Your task to perform on an android device: toggle javascript in the chrome app Image 0: 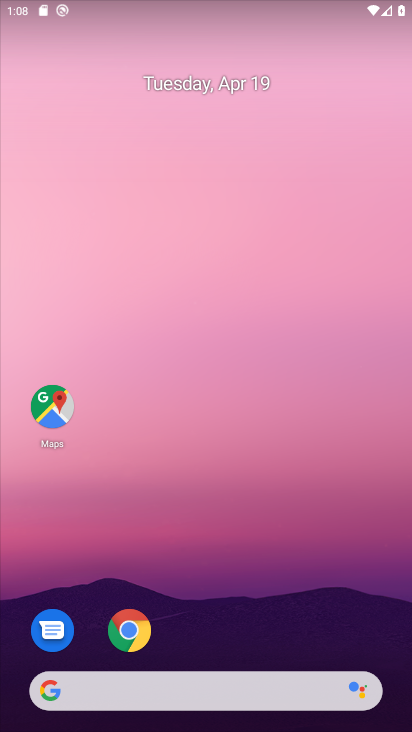
Step 0: click (120, 624)
Your task to perform on an android device: toggle javascript in the chrome app Image 1: 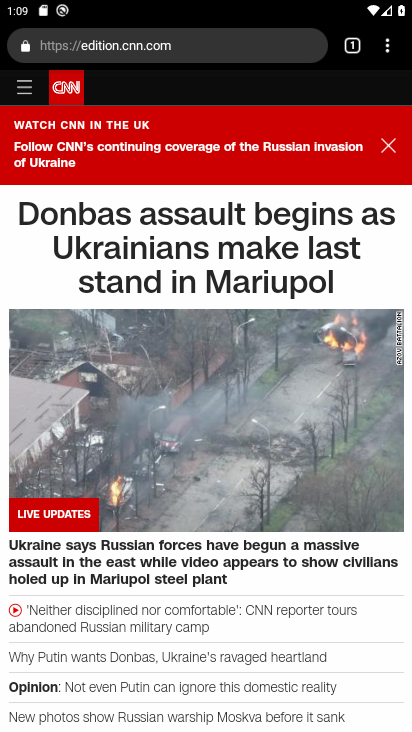
Step 1: click (383, 47)
Your task to perform on an android device: toggle javascript in the chrome app Image 2: 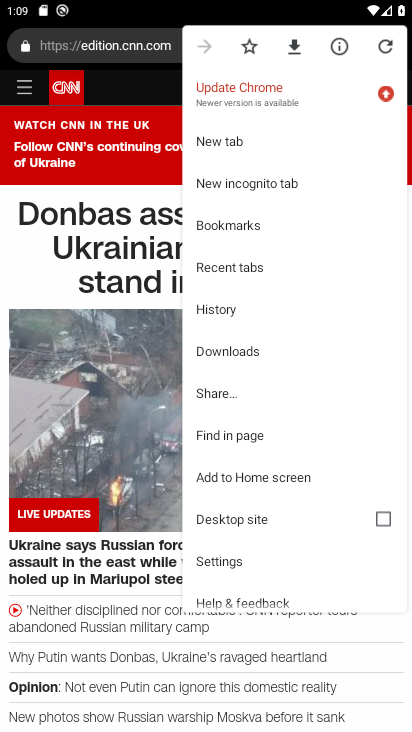
Step 2: click (198, 566)
Your task to perform on an android device: toggle javascript in the chrome app Image 3: 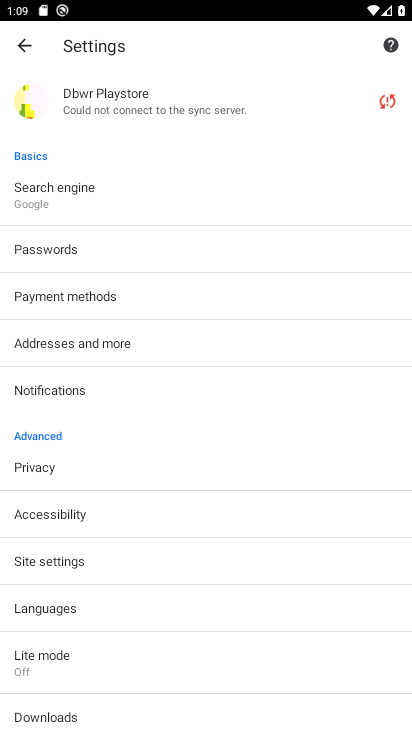
Step 3: click (118, 563)
Your task to perform on an android device: toggle javascript in the chrome app Image 4: 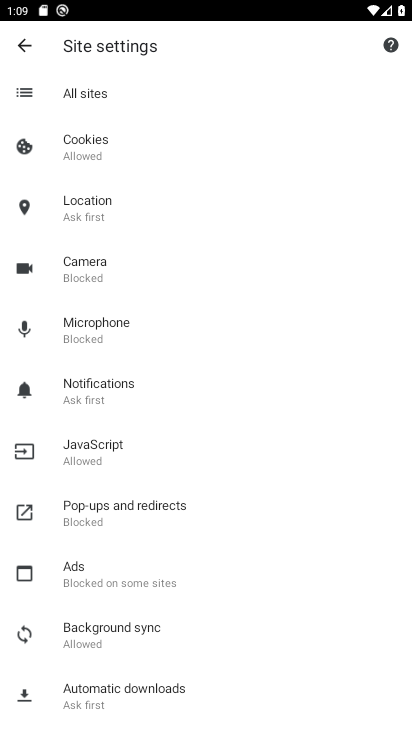
Step 4: click (148, 466)
Your task to perform on an android device: toggle javascript in the chrome app Image 5: 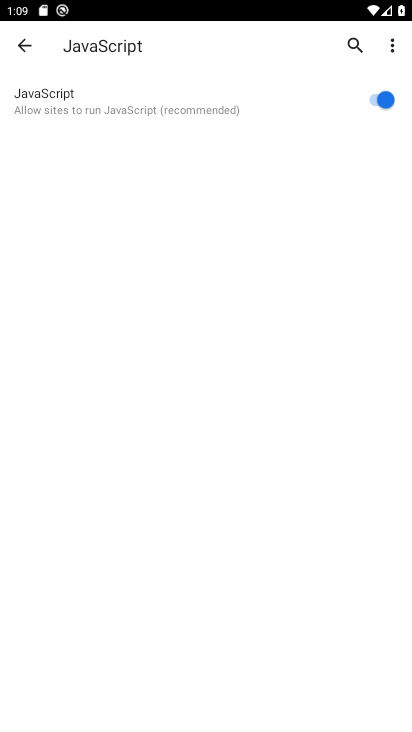
Step 5: click (377, 100)
Your task to perform on an android device: toggle javascript in the chrome app Image 6: 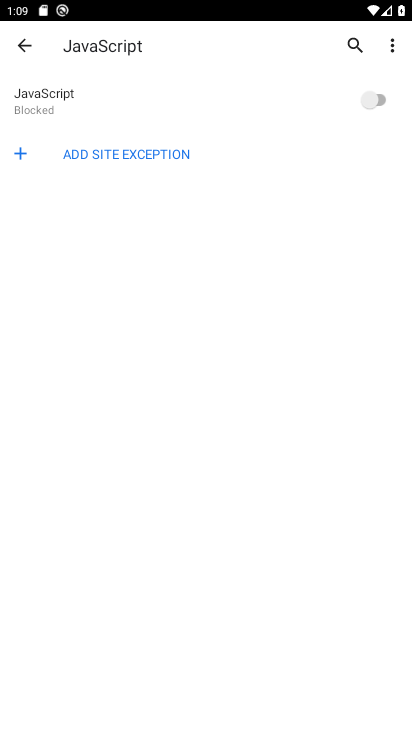
Step 6: task complete